Your task to perform on an android device: Turn on the flashlight Image 0: 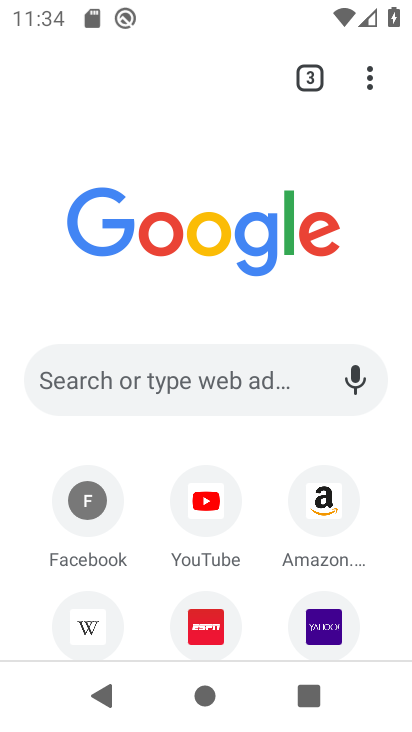
Step 0: press back button
Your task to perform on an android device: Turn on the flashlight Image 1: 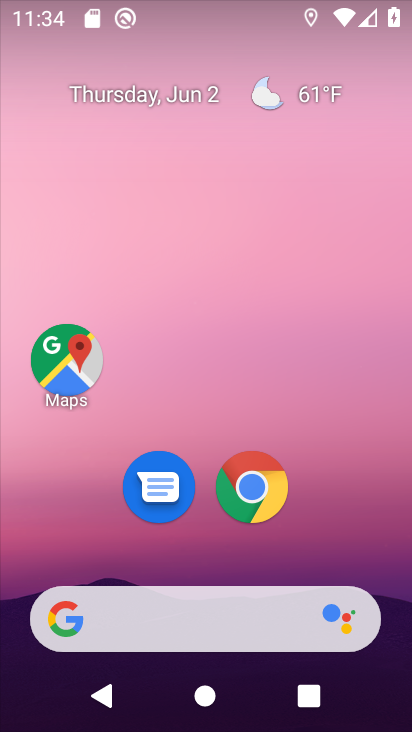
Step 1: drag from (334, 518) to (203, 57)
Your task to perform on an android device: Turn on the flashlight Image 2: 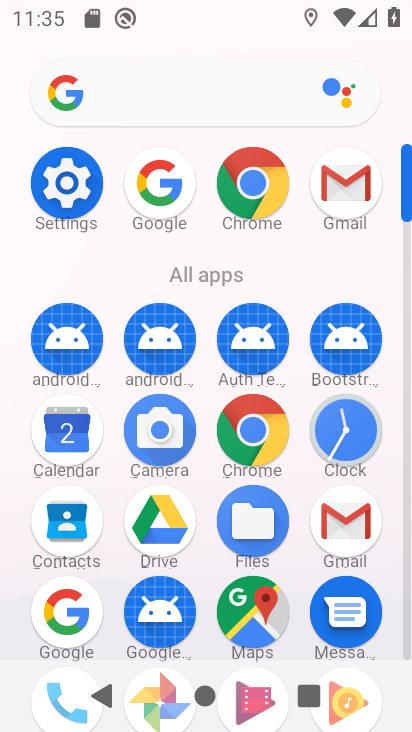
Step 2: click (67, 184)
Your task to perform on an android device: Turn on the flashlight Image 3: 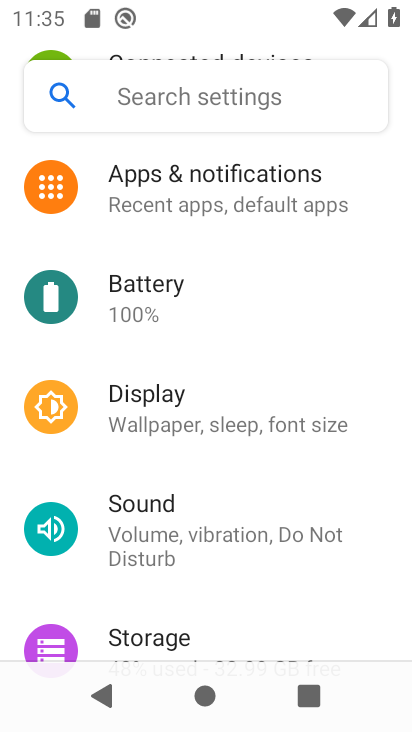
Step 3: click (209, 416)
Your task to perform on an android device: Turn on the flashlight Image 4: 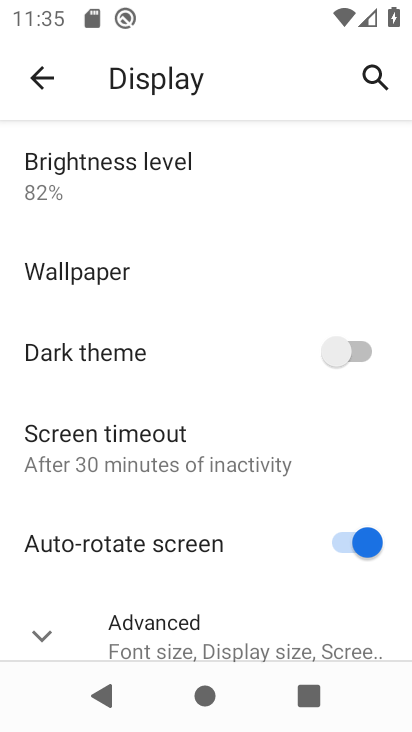
Step 4: drag from (157, 419) to (163, 336)
Your task to perform on an android device: Turn on the flashlight Image 5: 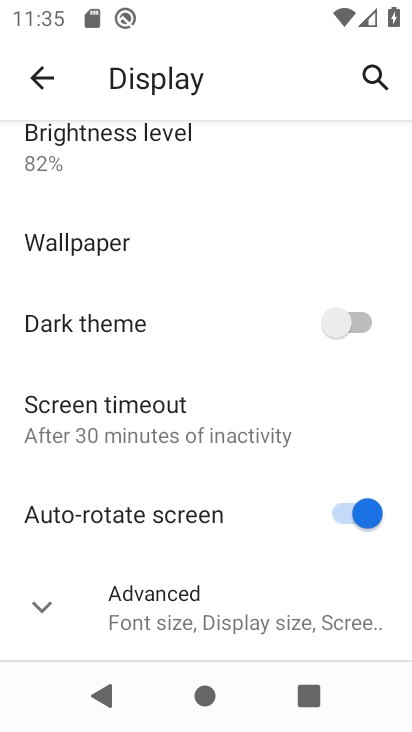
Step 5: drag from (120, 467) to (163, 373)
Your task to perform on an android device: Turn on the flashlight Image 6: 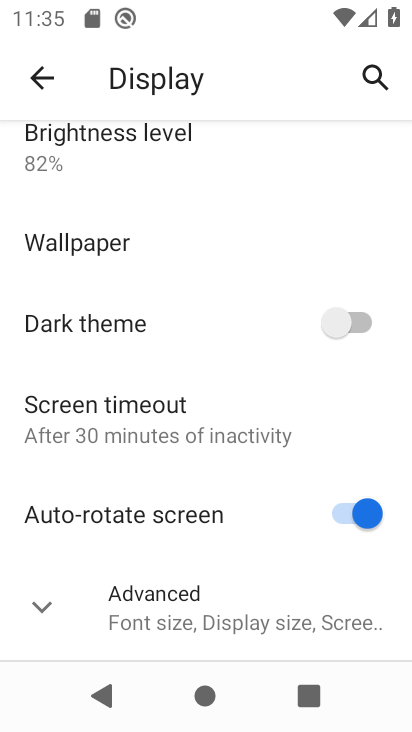
Step 6: drag from (169, 213) to (134, 377)
Your task to perform on an android device: Turn on the flashlight Image 7: 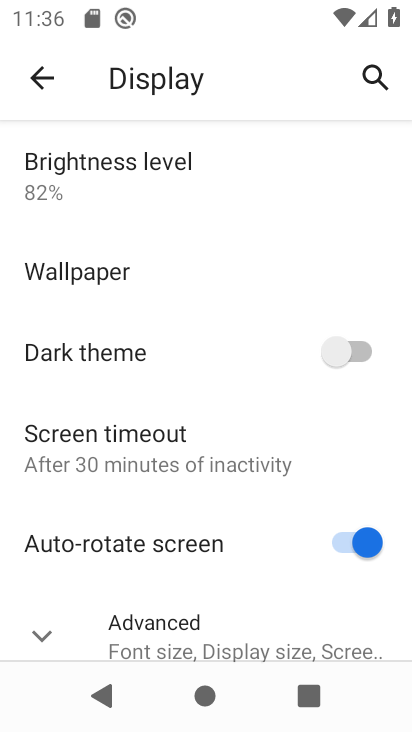
Step 7: click (56, 83)
Your task to perform on an android device: Turn on the flashlight Image 8: 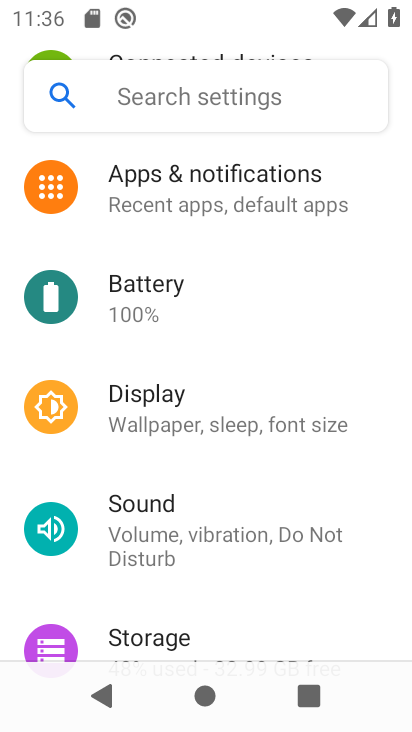
Step 8: drag from (146, 483) to (271, 340)
Your task to perform on an android device: Turn on the flashlight Image 9: 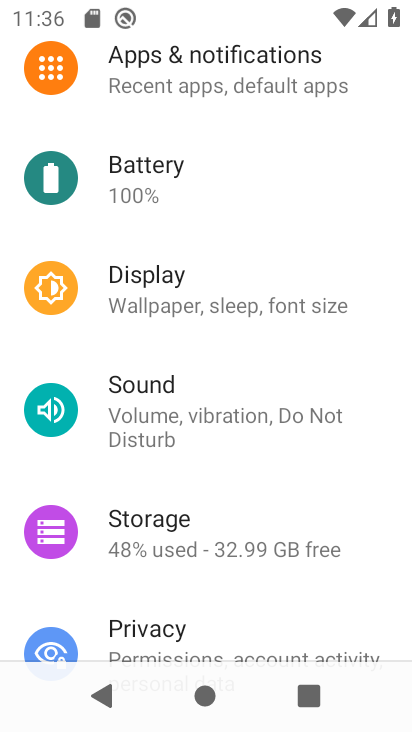
Step 9: drag from (231, 486) to (300, 355)
Your task to perform on an android device: Turn on the flashlight Image 10: 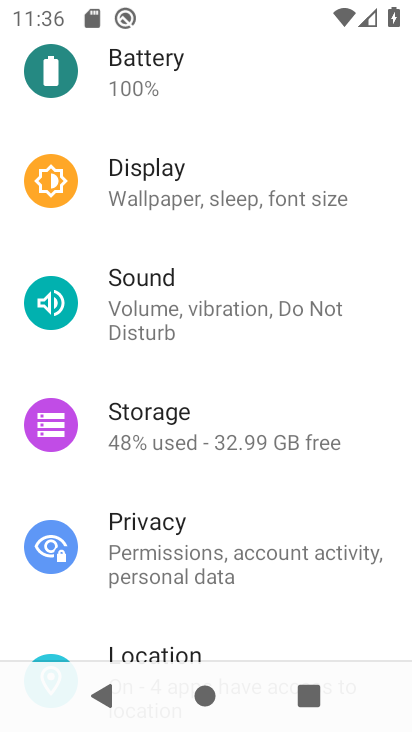
Step 10: drag from (195, 477) to (282, 358)
Your task to perform on an android device: Turn on the flashlight Image 11: 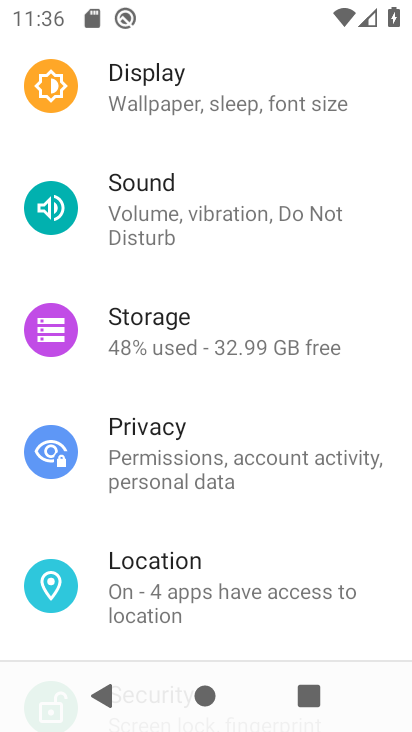
Step 11: drag from (151, 519) to (242, 406)
Your task to perform on an android device: Turn on the flashlight Image 12: 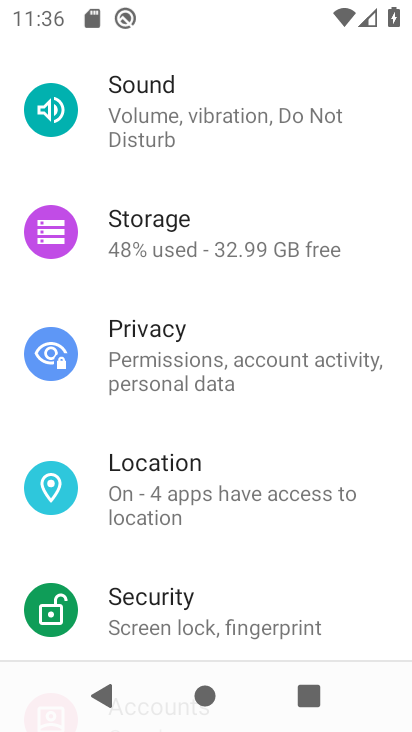
Step 12: drag from (157, 434) to (216, 336)
Your task to perform on an android device: Turn on the flashlight Image 13: 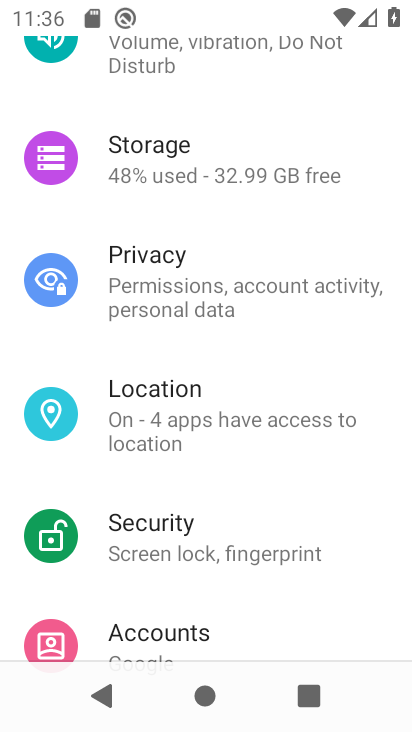
Step 13: drag from (147, 485) to (236, 356)
Your task to perform on an android device: Turn on the flashlight Image 14: 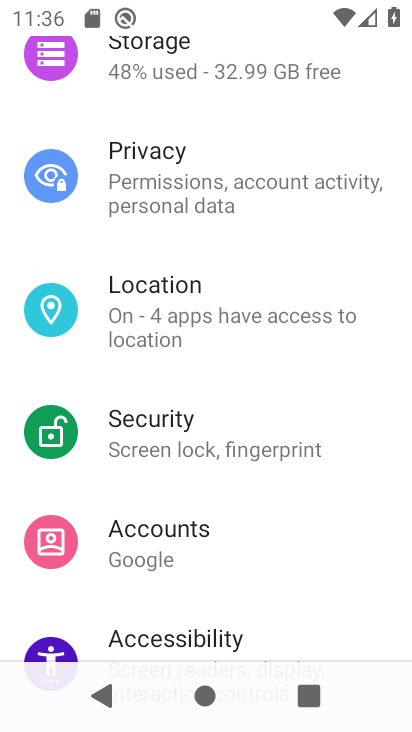
Step 14: drag from (126, 495) to (200, 391)
Your task to perform on an android device: Turn on the flashlight Image 15: 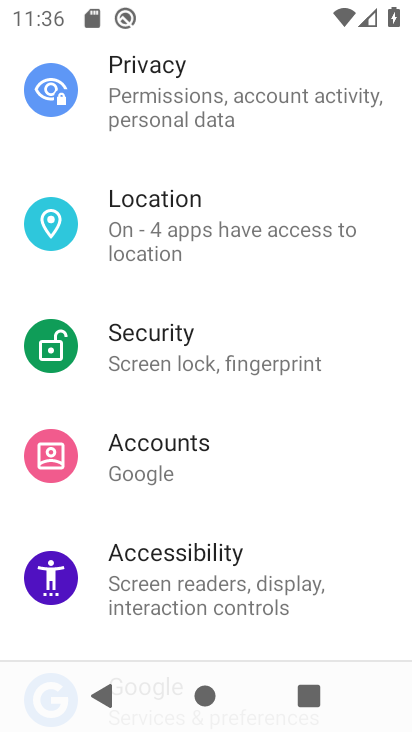
Step 15: drag from (129, 520) to (188, 416)
Your task to perform on an android device: Turn on the flashlight Image 16: 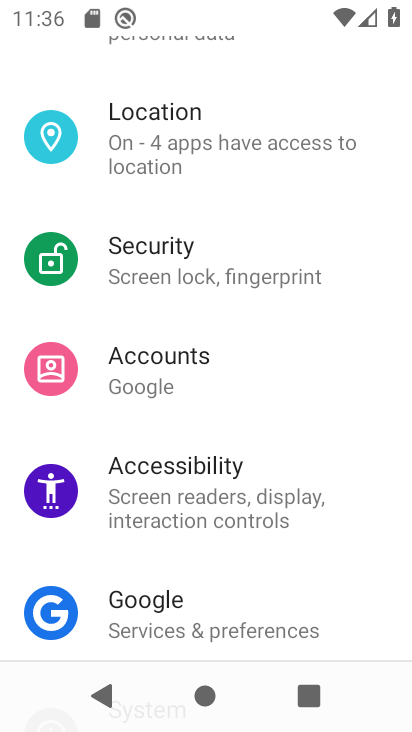
Step 16: drag from (165, 555) to (212, 474)
Your task to perform on an android device: Turn on the flashlight Image 17: 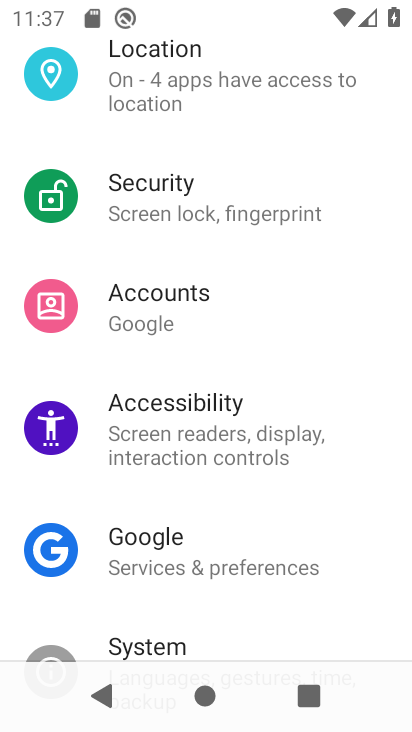
Step 17: drag from (188, 521) to (259, 431)
Your task to perform on an android device: Turn on the flashlight Image 18: 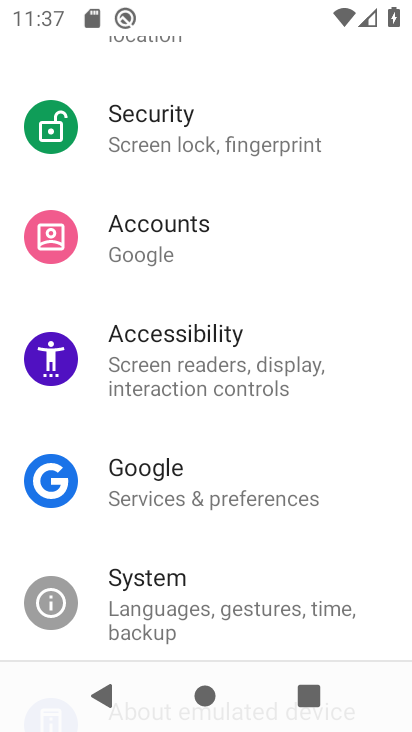
Step 18: click (230, 368)
Your task to perform on an android device: Turn on the flashlight Image 19: 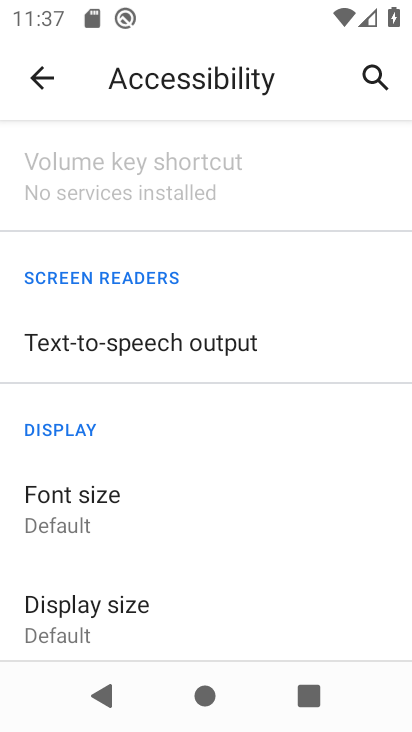
Step 19: task complete